Your task to perform on an android device: What is the news today? Image 0: 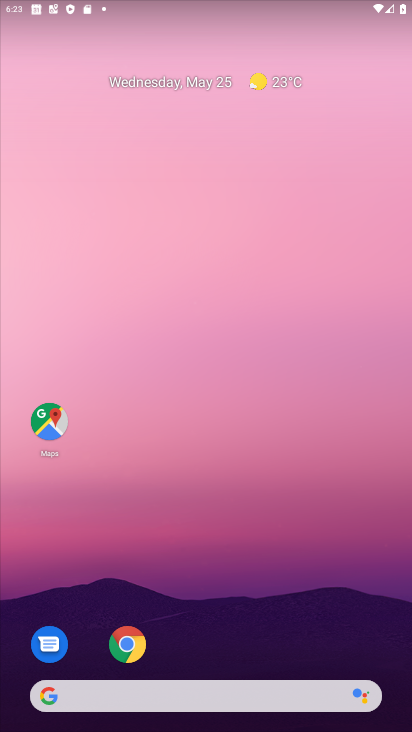
Step 0: drag from (306, 638) to (315, 24)
Your task to perform on an android device: What is the news today? Image 1: 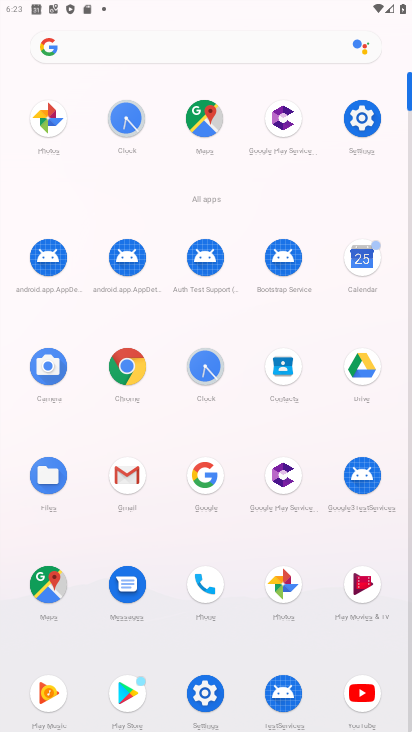
Step 1: click (219, 466)
Your task to perform on an android device: What is the news today? Image 2: 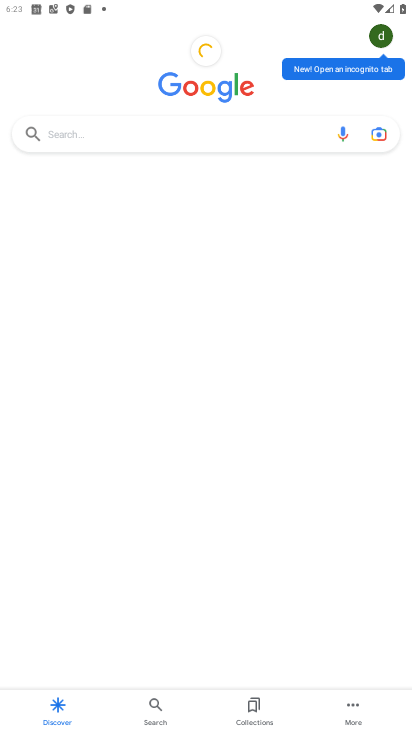
Step 2: click (160, 132)
Your task to perform on an android device: What is the news today? Image 3: 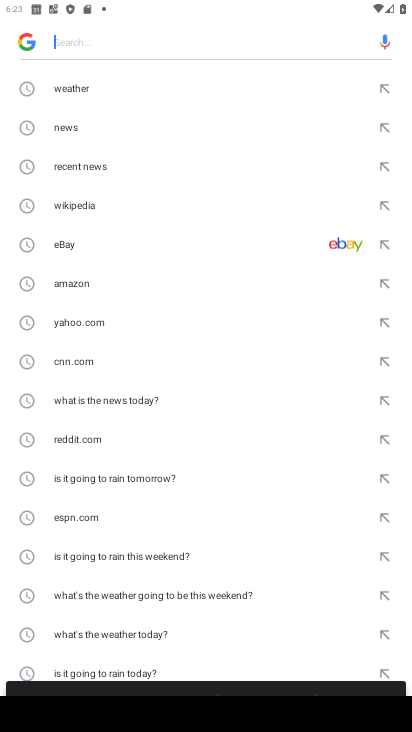
Step 3: click (174, 406)
Your task to perform on an android device: What is the news today? Image 4: 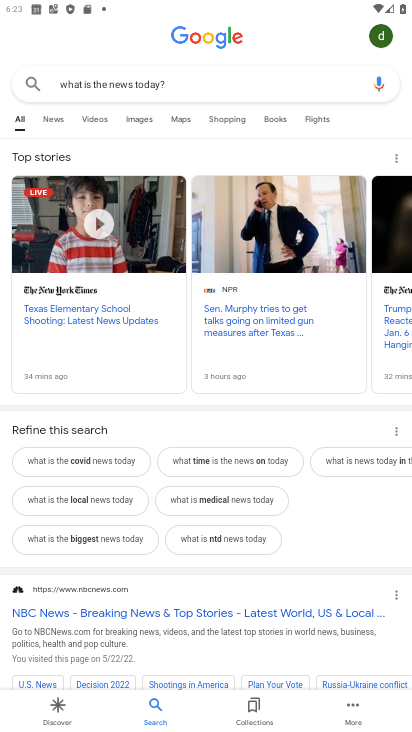
Step 4: task complete